Your task to perform on an android device: change the clock display to digital Image 0: 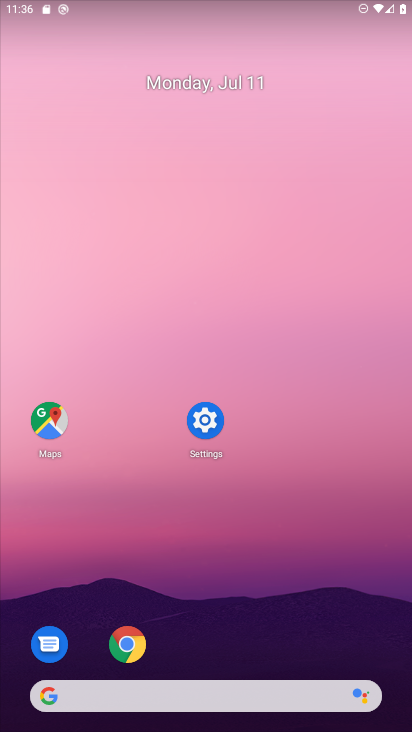
Step 0: drag from (396, 660) to (352, 201)
Your task to perform on an android device: change the clock display to digital Image 1: 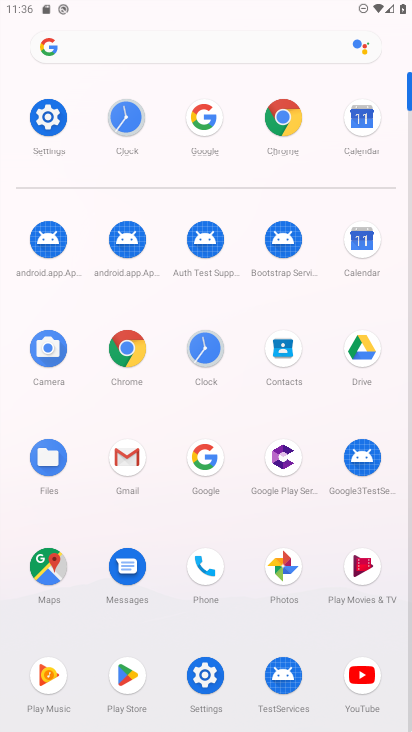
Step 1: click (203, 357)
Your task to perform on an android device: change the clock display to digital Image 2: 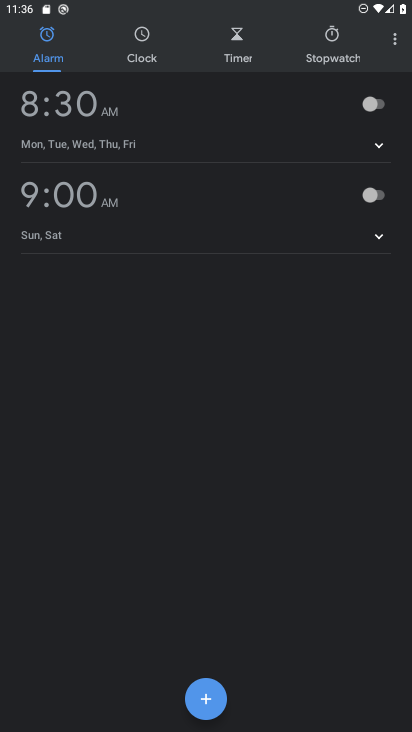
Step 2: click (392, 40)
Your task to perform on an android device: change the clock display to digital Image 3: 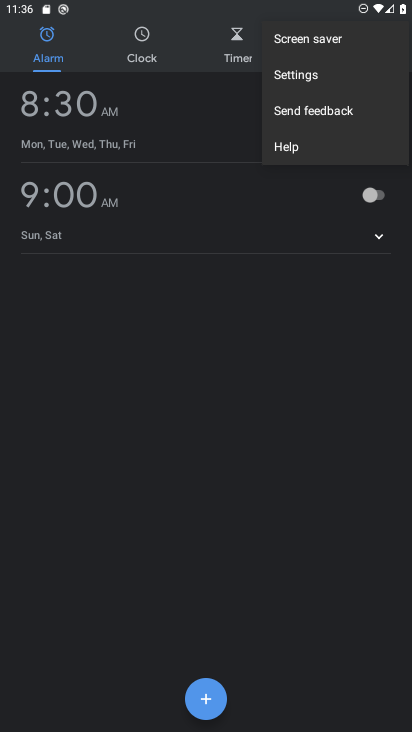
Step 3: click (312, 80)
Your task to perform on an android device: change the clock display to digital Image 4: 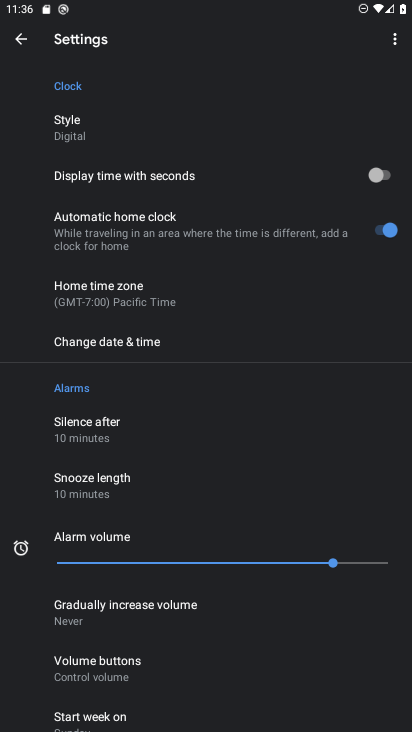
Step 4: click (58, 116)
Your task to perform on an android device: change the clock display to digital Image 5: 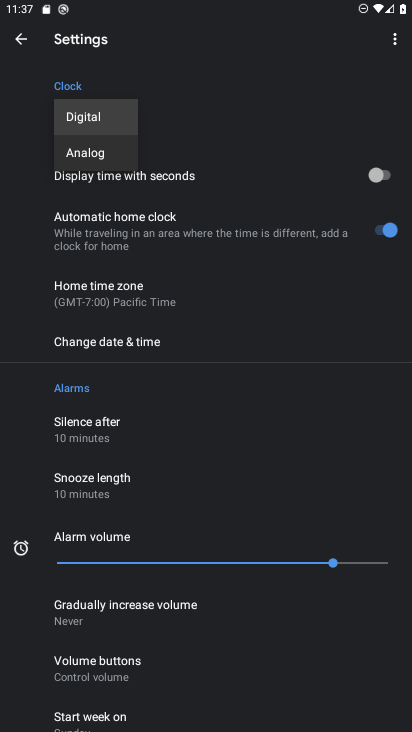
Step 5: click (99, 116)
Your task to perform on an android device: change the clock display to digital Image 6: 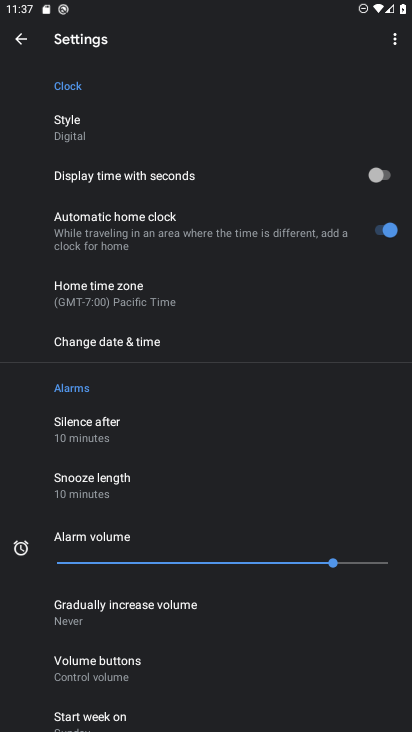
Step 6: task complete